Your task to perform on an android device: open chrome privacy settings Image 0: 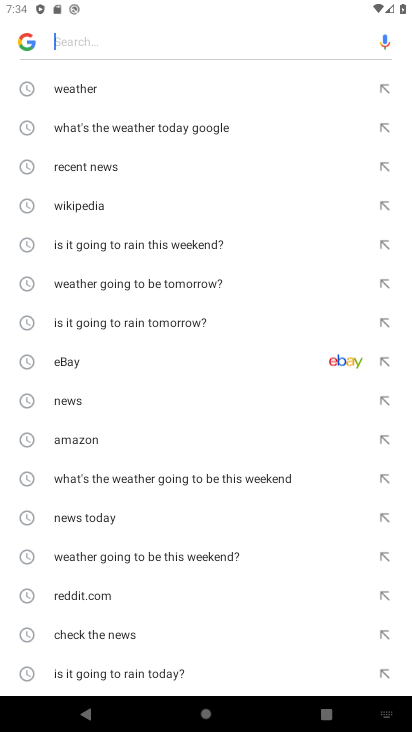
Step 0: press home button
Your task to perform on an android device: open chrome privacy settings Image 1: 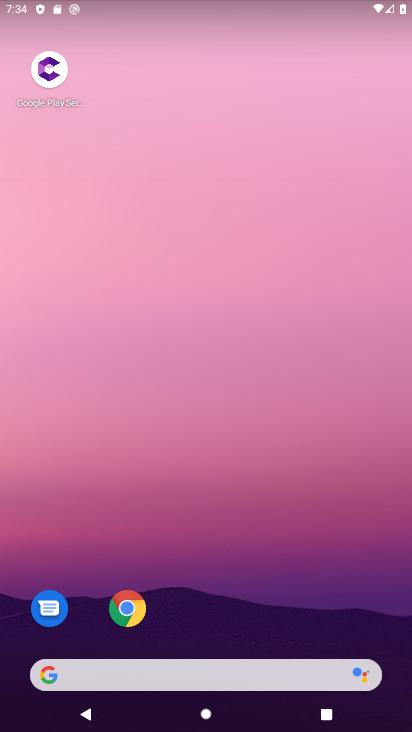
Step 1: click (125, 603)
Your task to perform on an android device: open chrome privacy settings Image 2: 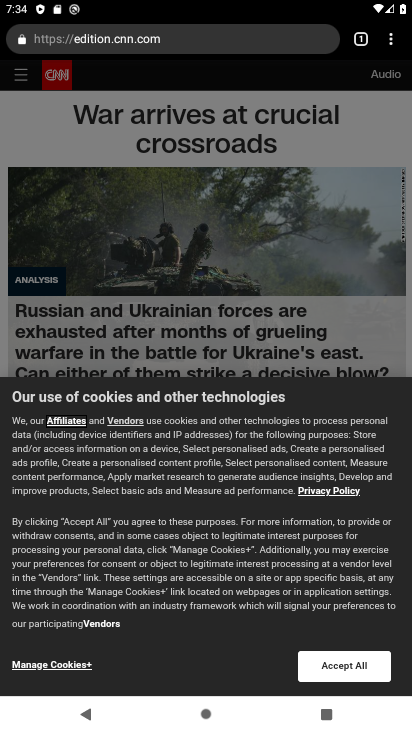
Step 2: click (393, 40)
Your task to perform on an android device: open chrome privacy settings Image 3: 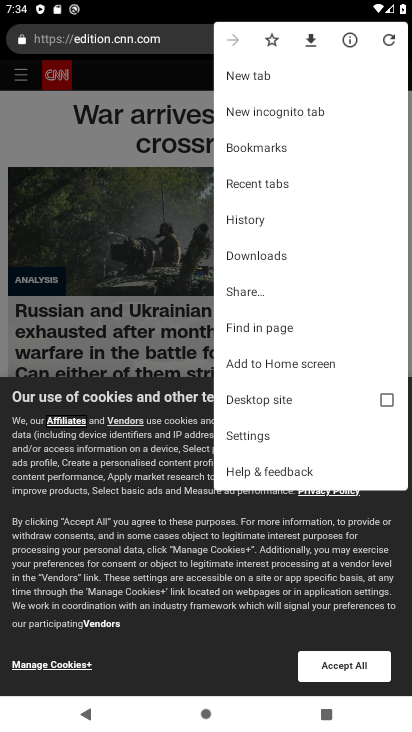
Step 3: click (253, 434)
Your task to perform on an android device: open chrome privacy settings Image 4: 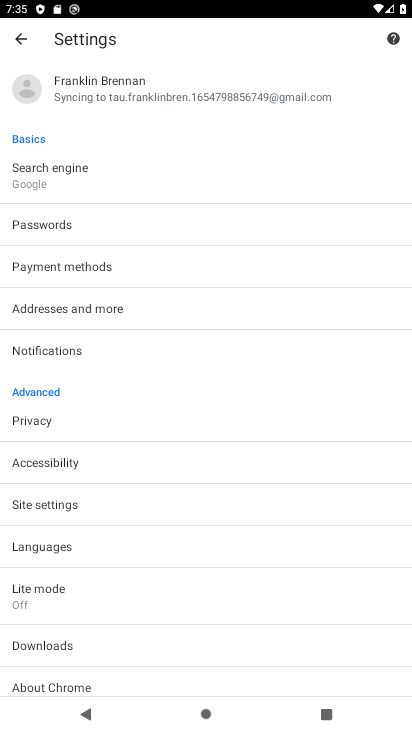
Step 4: click (29, 419)
Your task to perform on an android device: open chrome privacy settings Image 5: 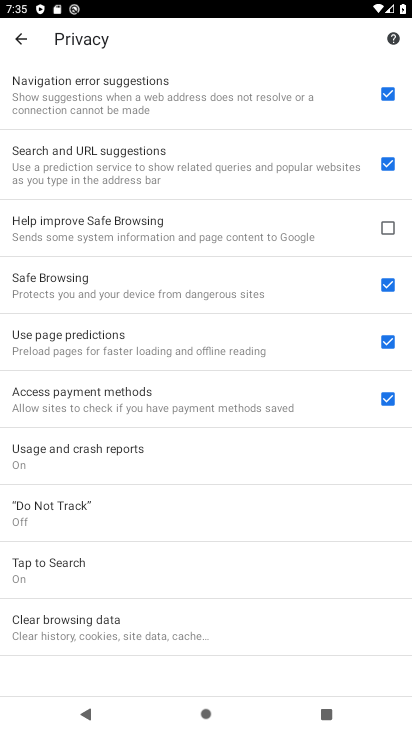
Step 5: task complete